Your task to perform on an android device: Open Chrome and go to settings Image 0: 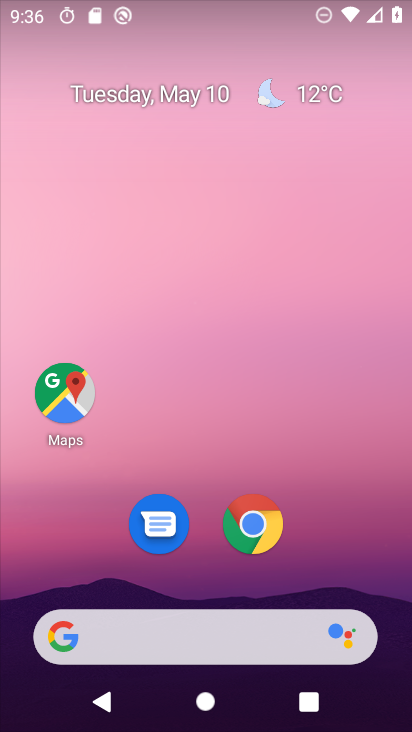
Step 0: click (256, 517)
Your task to perform on an android device: Open Chrome and go to settings Image 1: 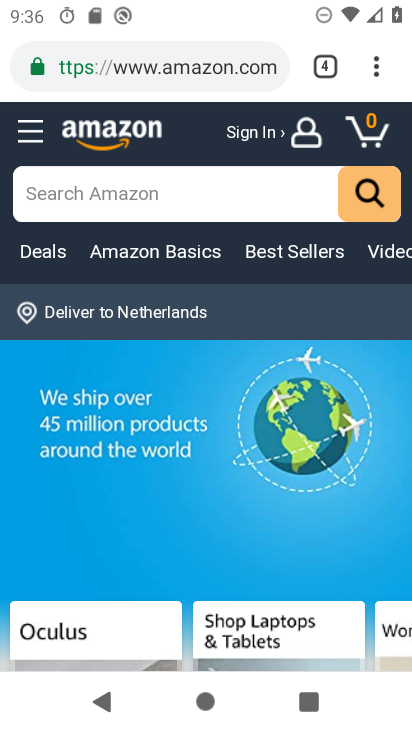
Step 1: click (376, 67)
Your task to perform on an android device: Open Chrome and go to settings Image 2: 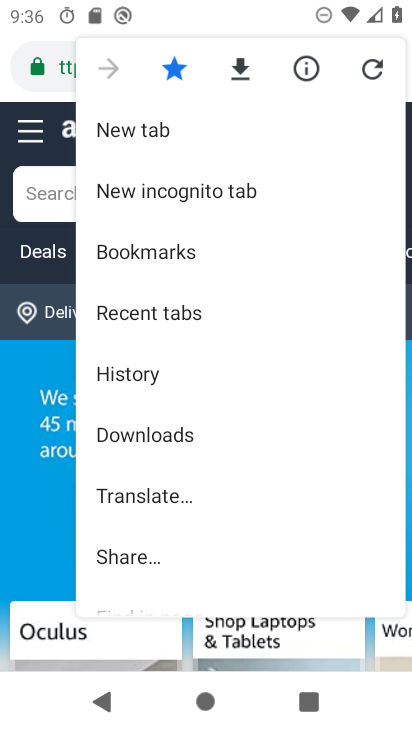
Step 2: drag from (221, 458) to (239, 163)
Your task to perform on an android device: Open Chrome and go to settings Image 3: 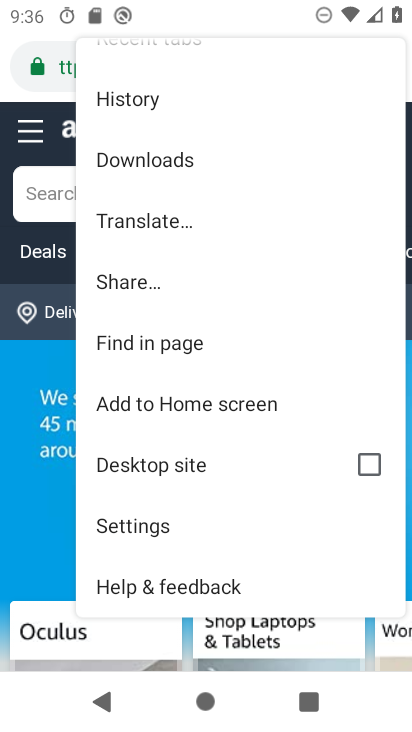
Step 3: click (171, 521)
Your task to perform on an android device: Open Chrome and go to settings Image 4: 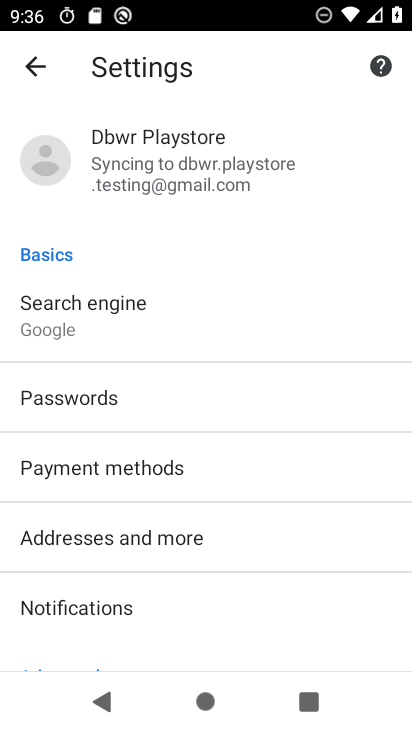
Step 4: task complete